Your task to perform on an android device: Add razer blade to the cart on ebay Image 0: 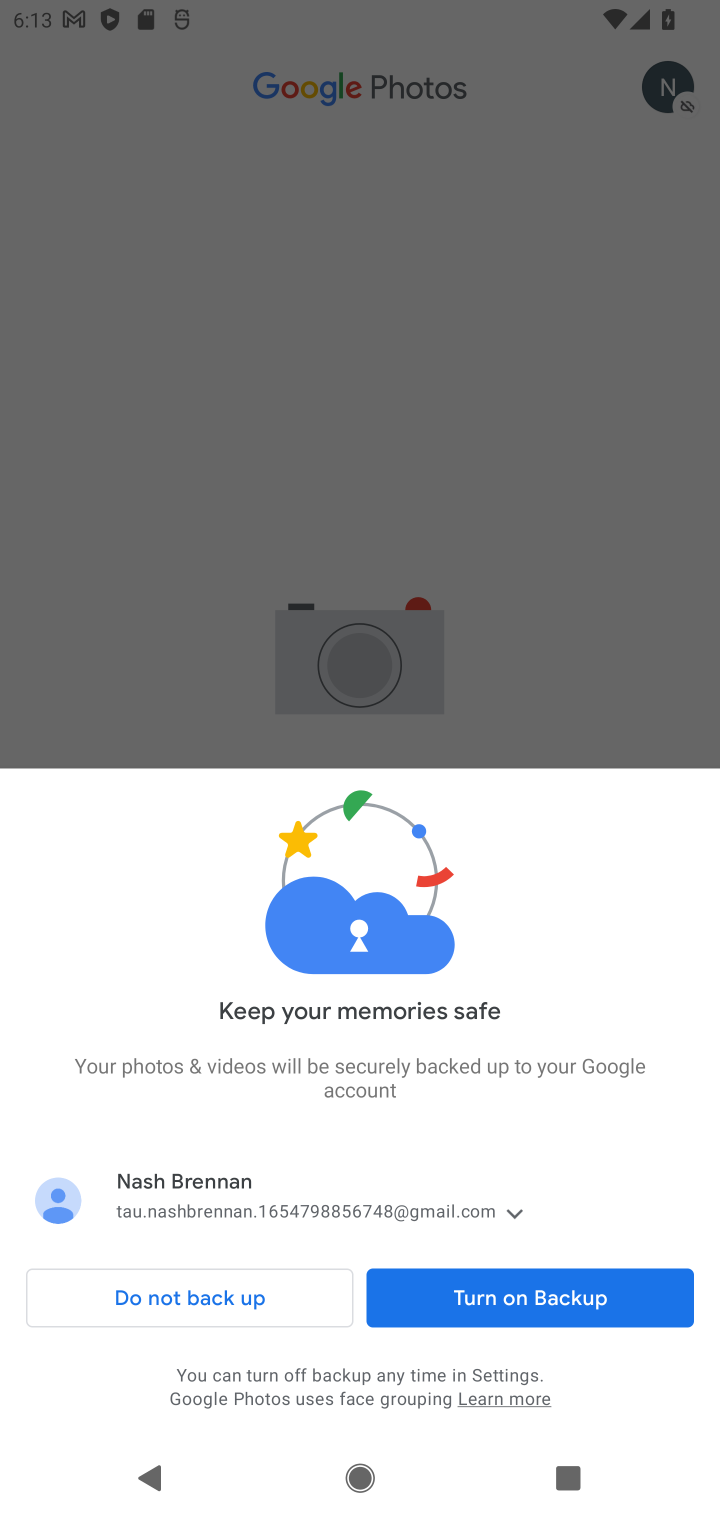
Step 0: press home button
Your task to perform on an android device: Add razer blade to the cart on ebay Image 1: 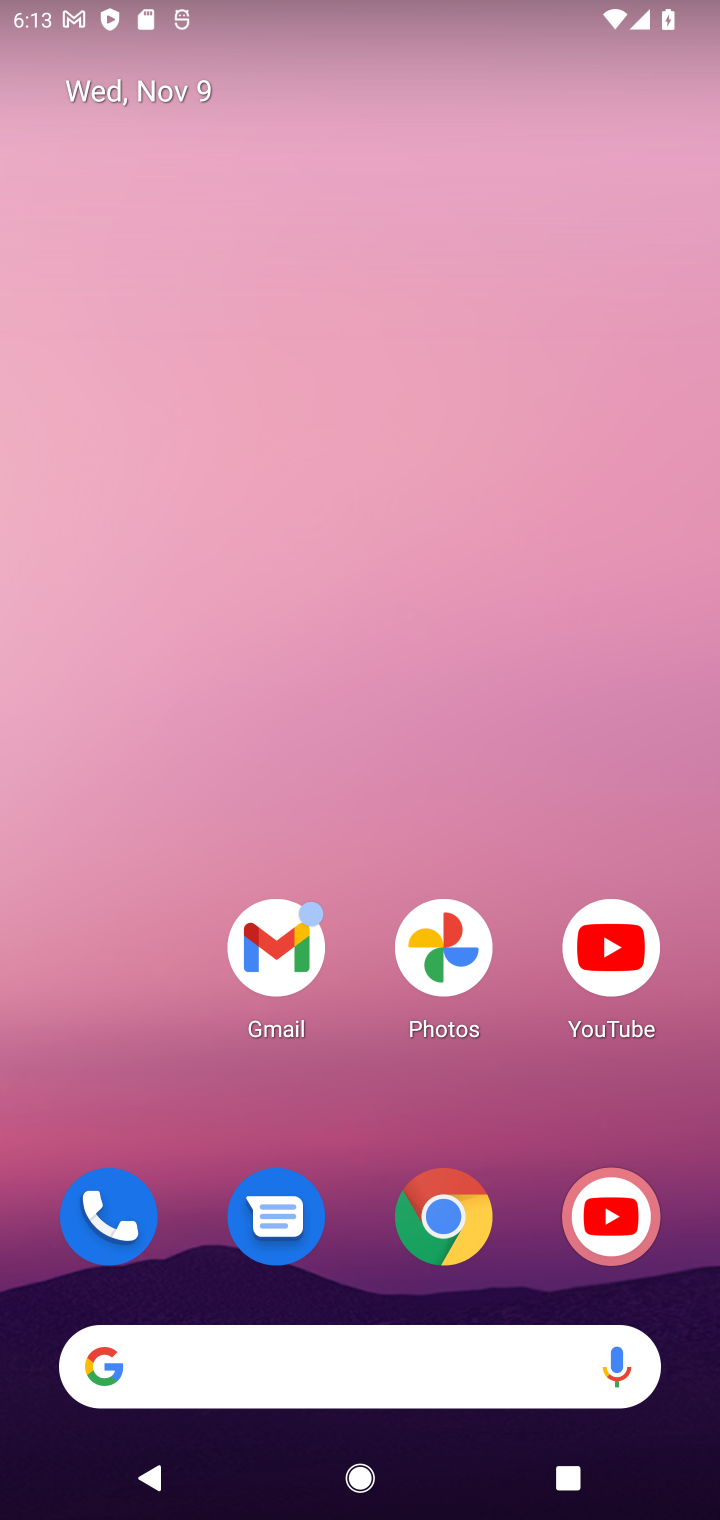
Step 1: drag from (357, 1041) to (426, 209)
Your task to perform on an android device: Add razer blade to the cart on ebay Image 2: 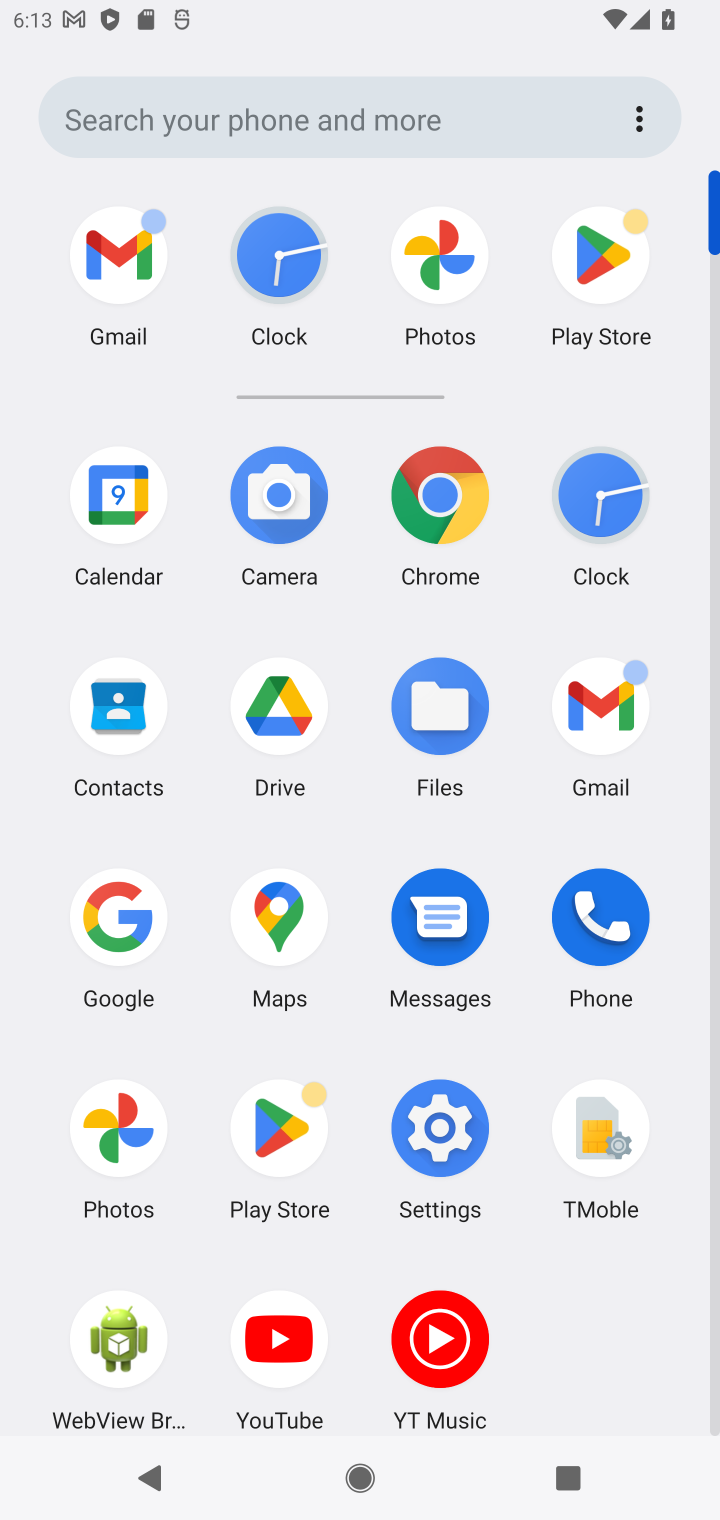
Step 2: click (451, 475)
Your task to perform on an android device: Add razer blade to the cart on ebay Image 3: 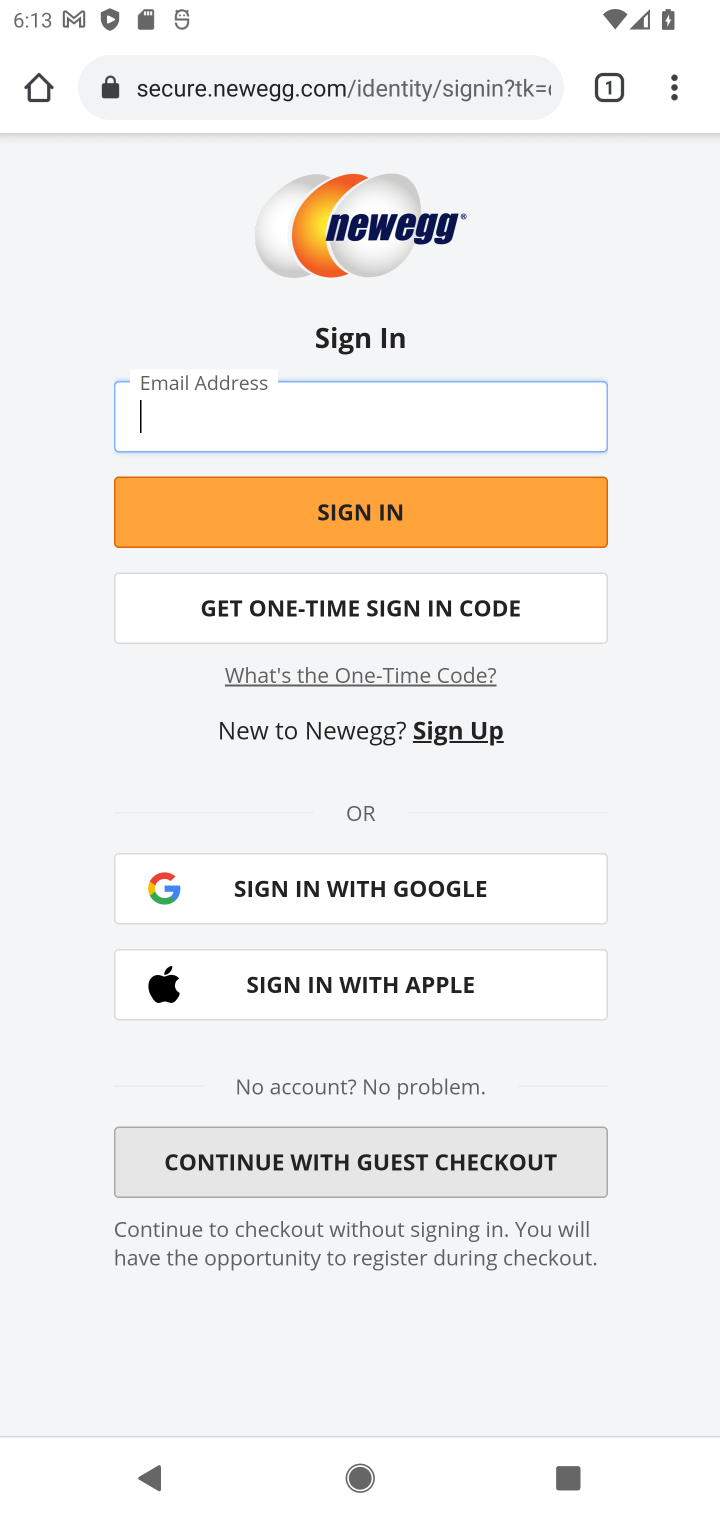
Step 3: click (416, 87)
Your task to perform on an android device: Add razer blade to the cart on ebay Image 4: 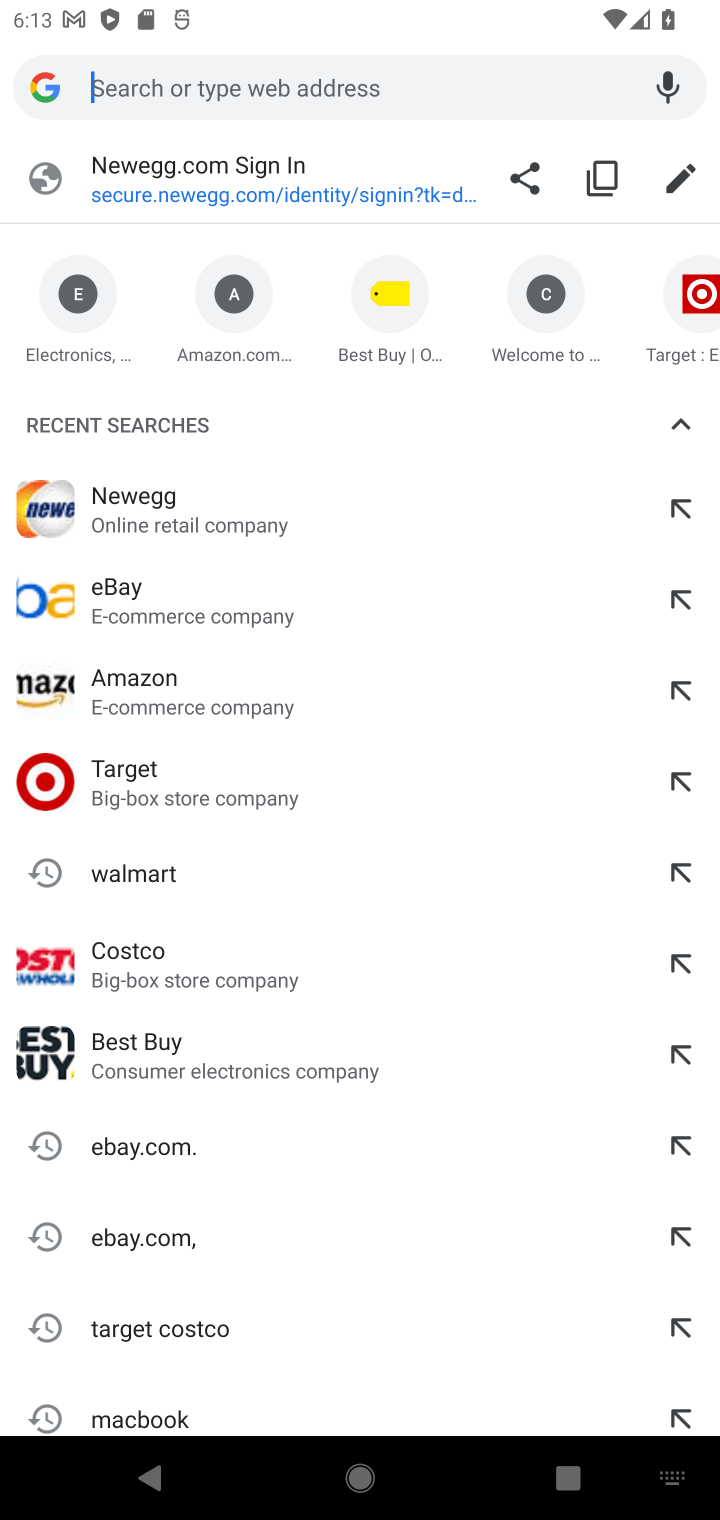
Step 4: type "ebay.com"
Your task to perform on an android device: Add razer blade to the cart on ebay Image 5: 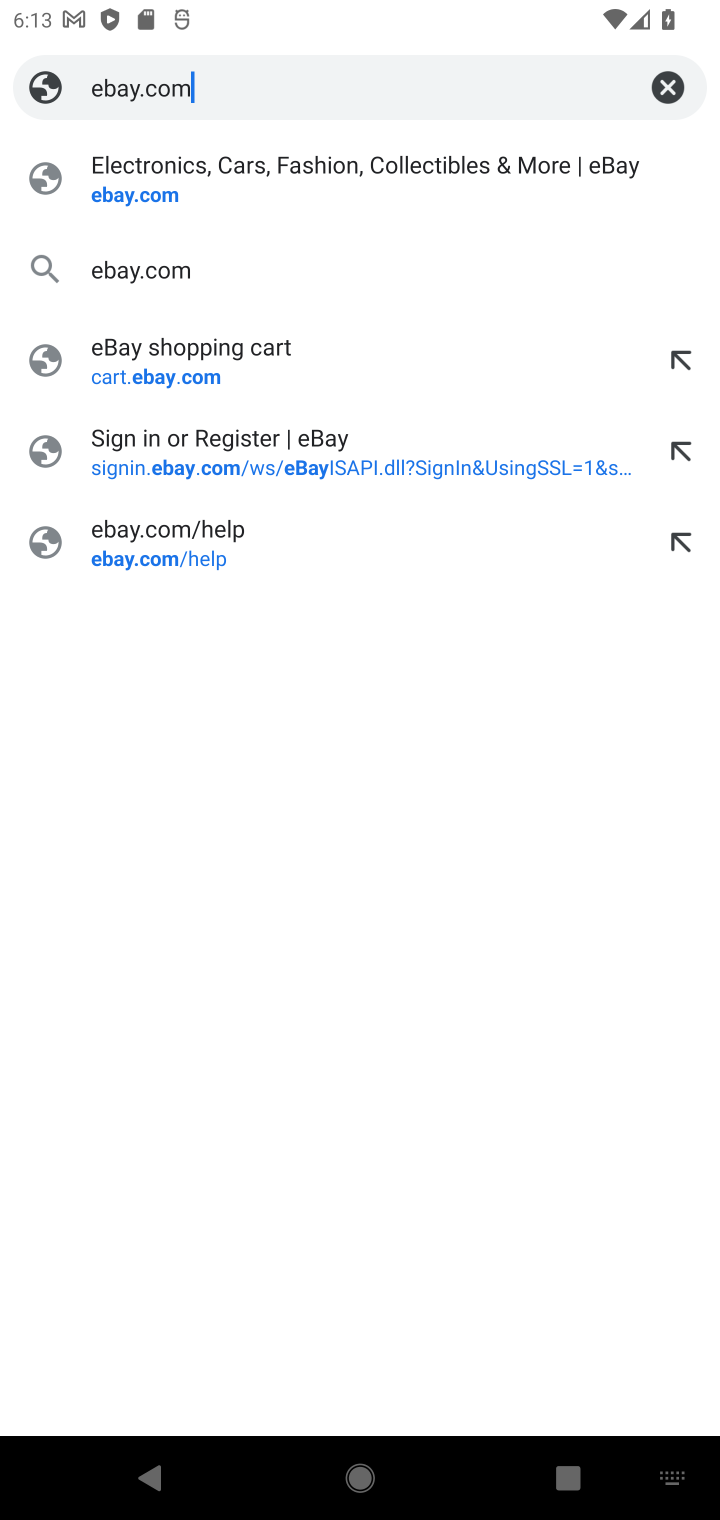
Step 5: press enter
Your task to perform on an android device: Add razer blade to the cart on ebay Image 6: 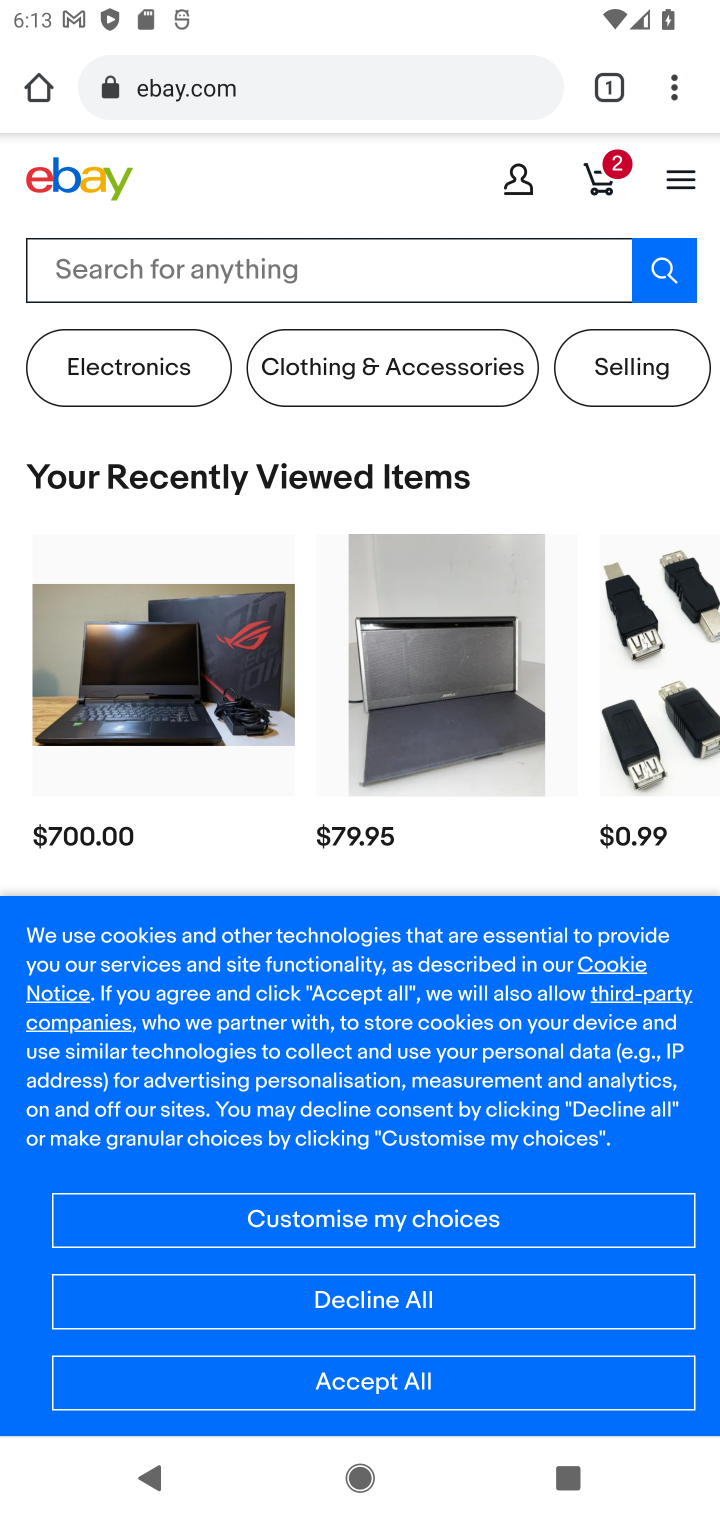
Step 6: click (402, 278)
Your task to perform on an android device: Add razer blade to the cart on ebay Image 7: 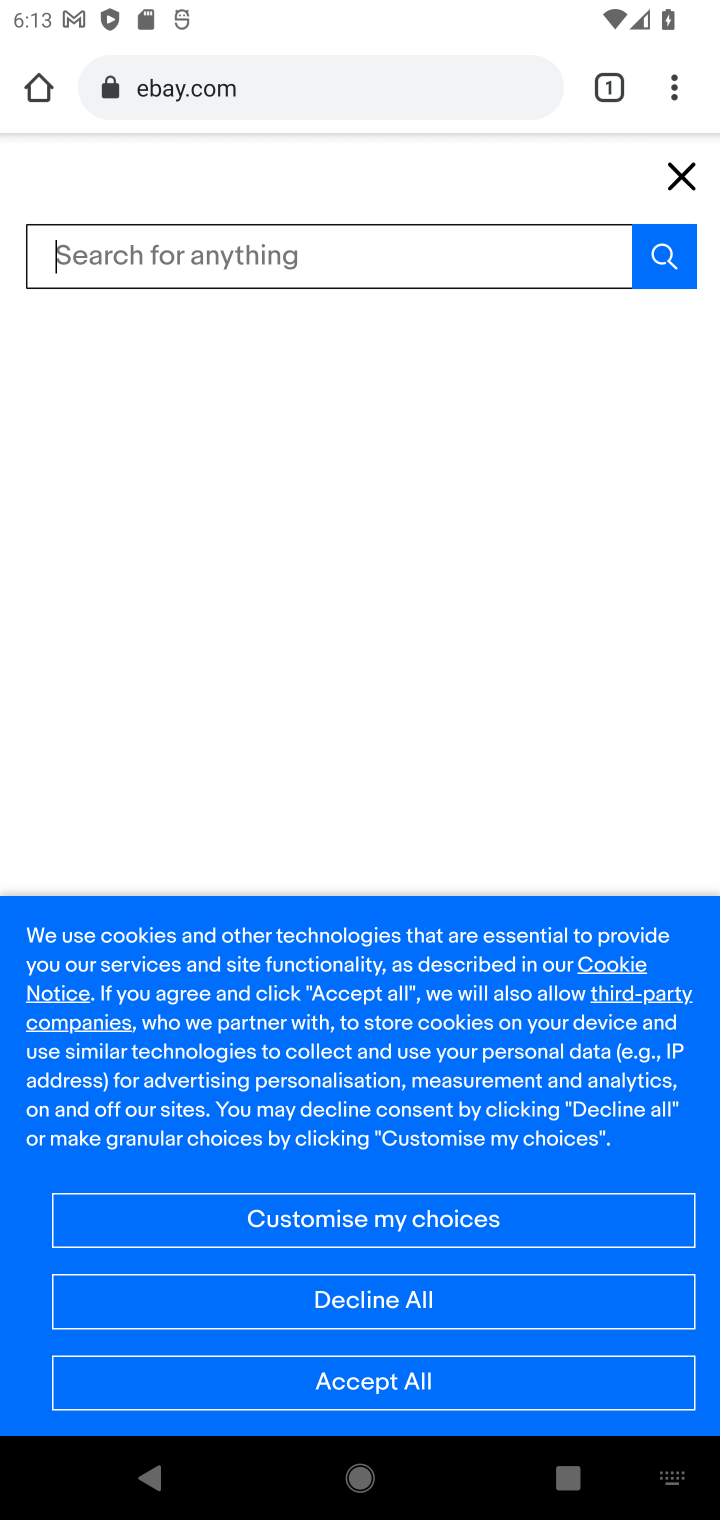
Step 7: type "razer blade"
Your task to perform on an android device: Add razer blade to the cart on ebay Image 8: 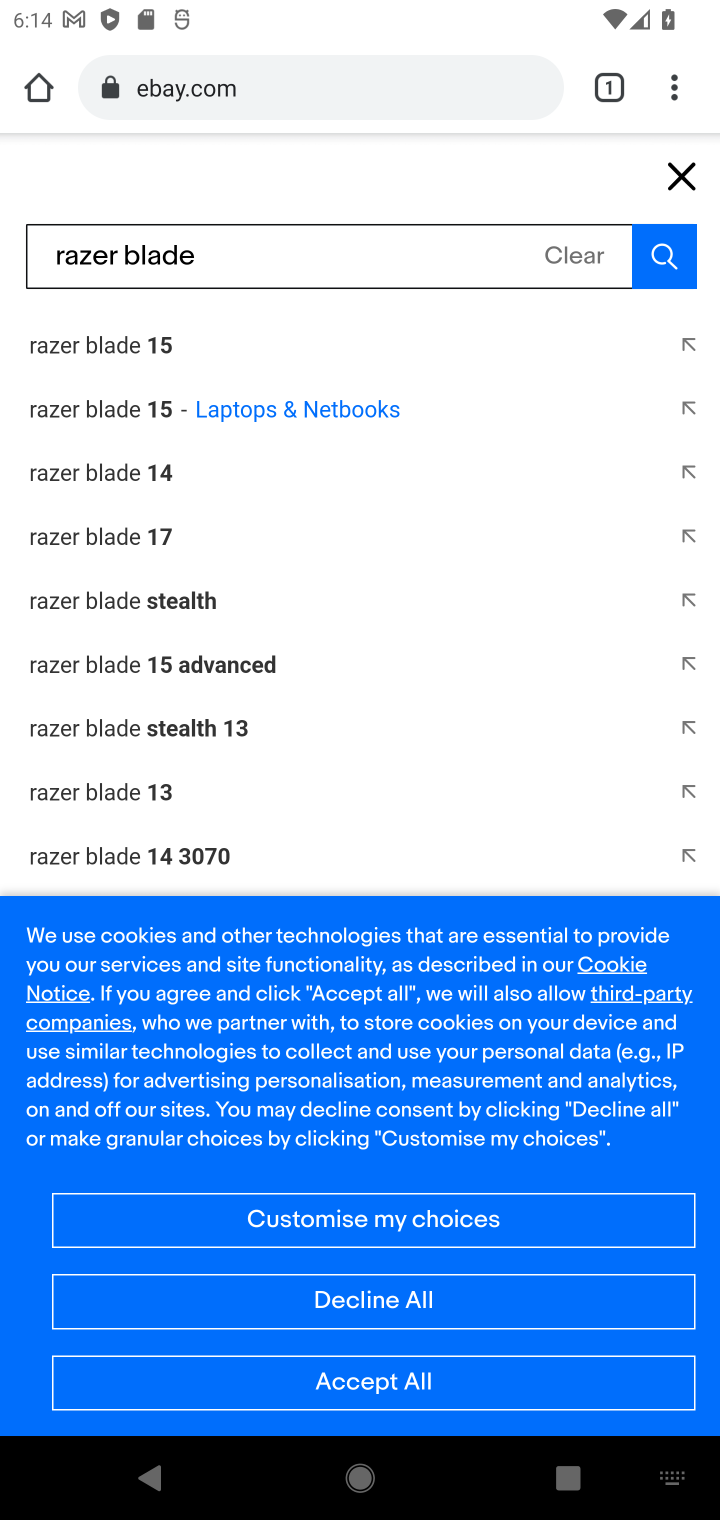
Step 8: press enter
Your task to perform on an android device: Add razer blade to the cart on ebay Image 9: 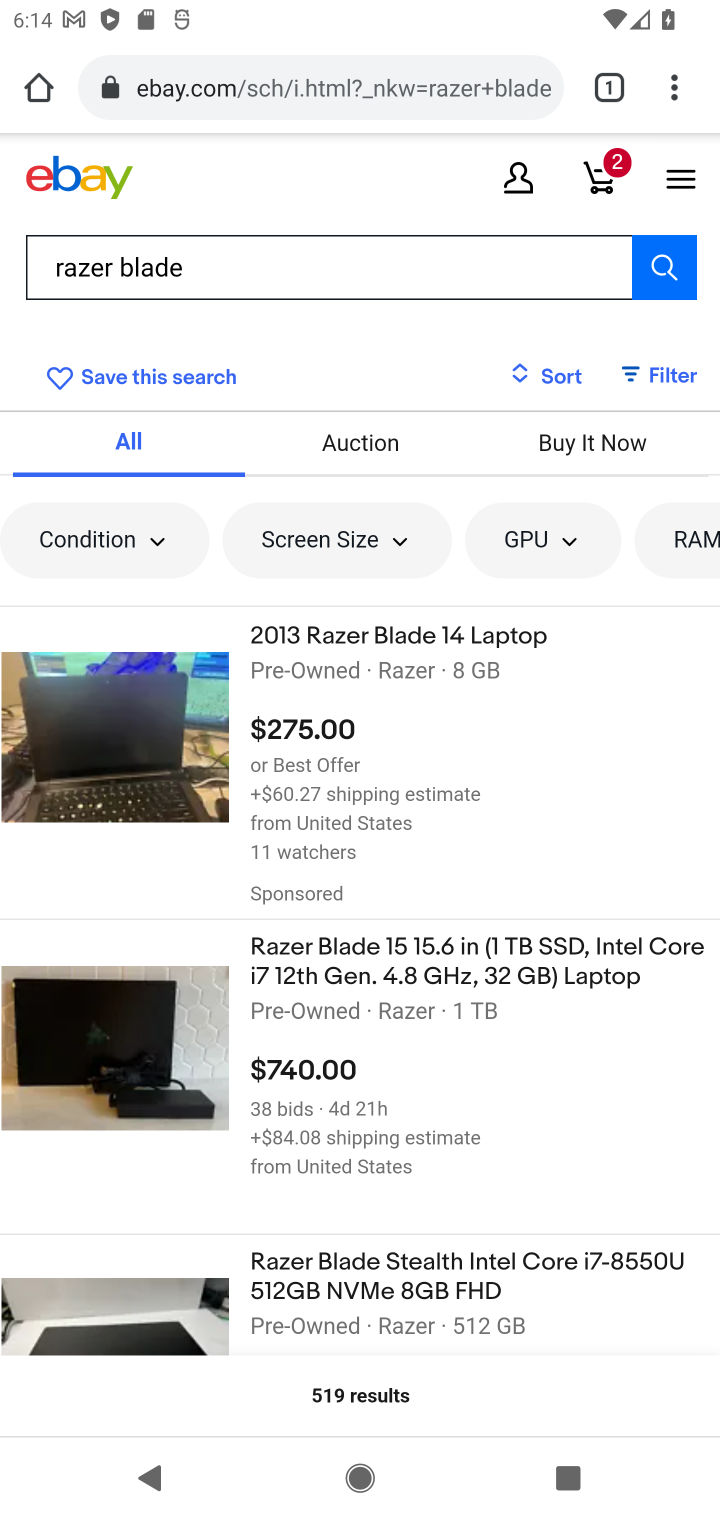
Step 9: click (87, 696)
Your task to perform on an android device: Add razer blade to the cart on ebay Image 10: 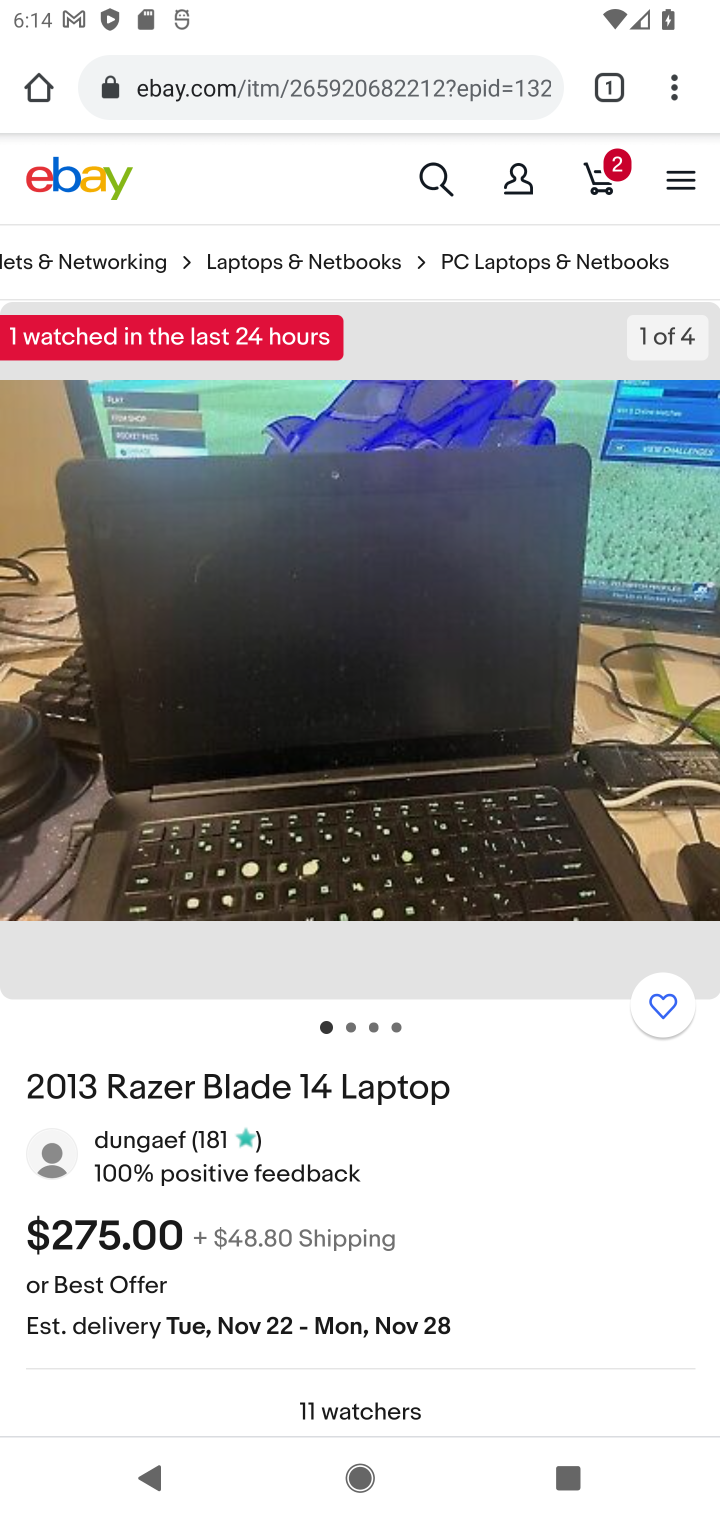
Step 10: drag from (455, 1223) to (454, 527)
Your task to perform on an android device: Add razer blade to the cart on ebay Image 11: 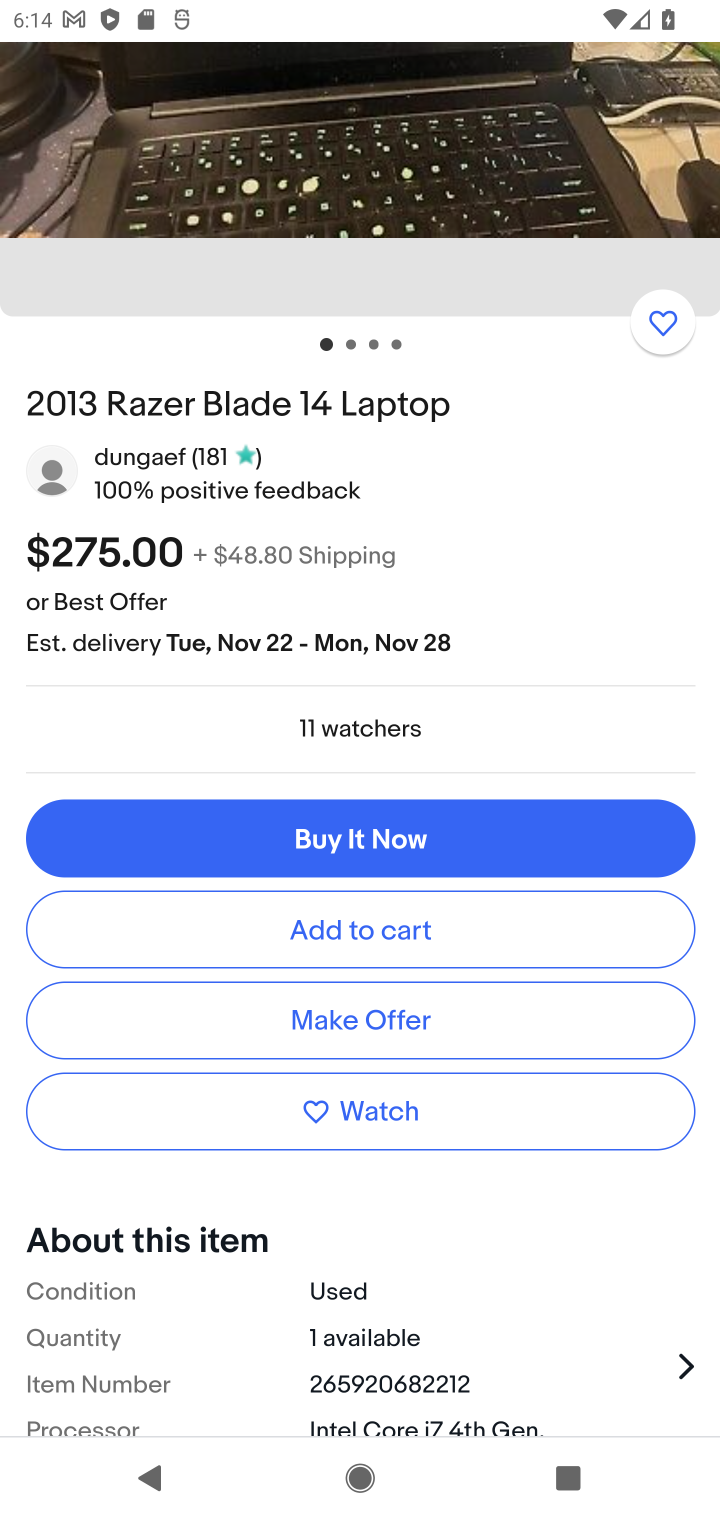
Step 11: click (456, 933)
Your task to perform on an android device: Add razer blade to the cart on ebay Image 12: 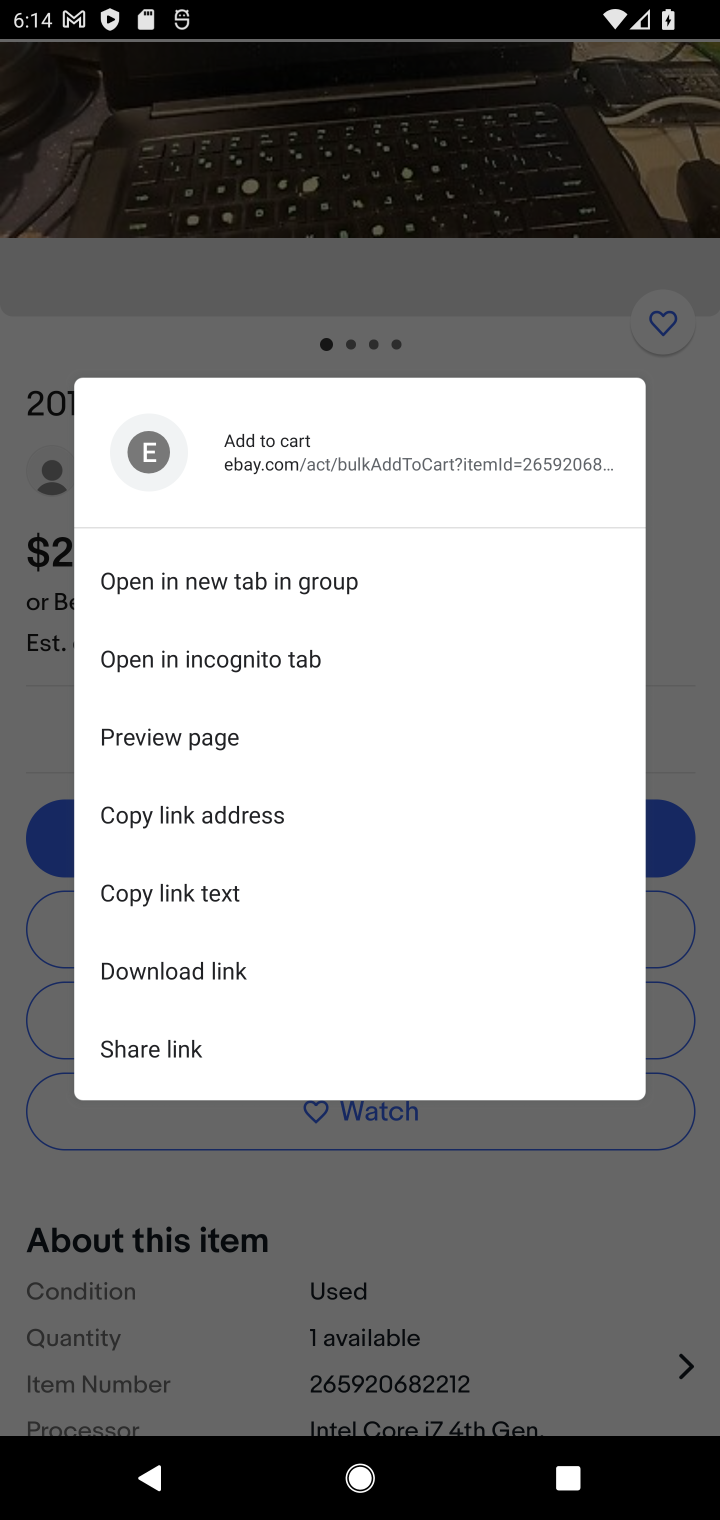
Step 12: click (373, 279)
Your task to perform on an android device: Add razer blade to the cart on ebay Image 13: 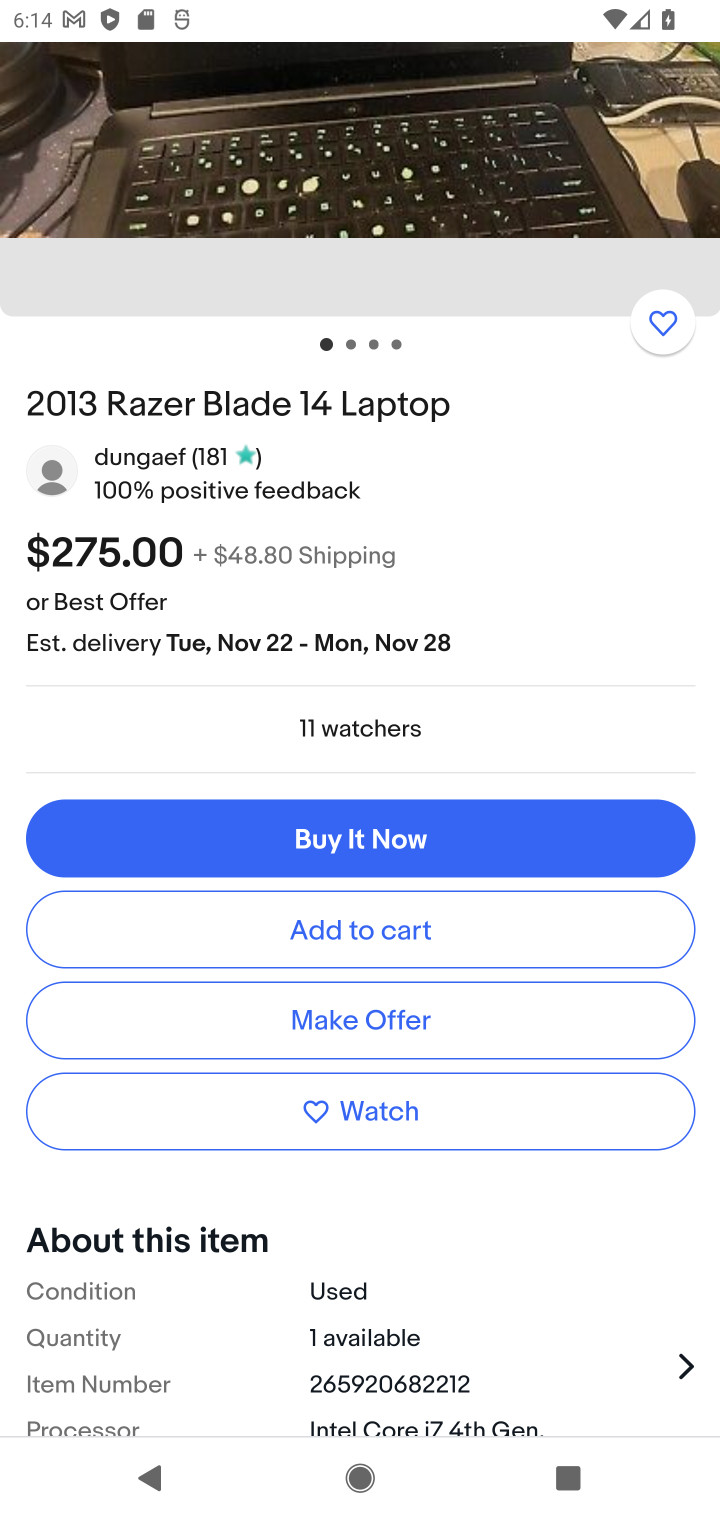
Step 13: click (345, 937)
Your task to perform on an android device: Add razer blade to the cart on ebay Image 14: 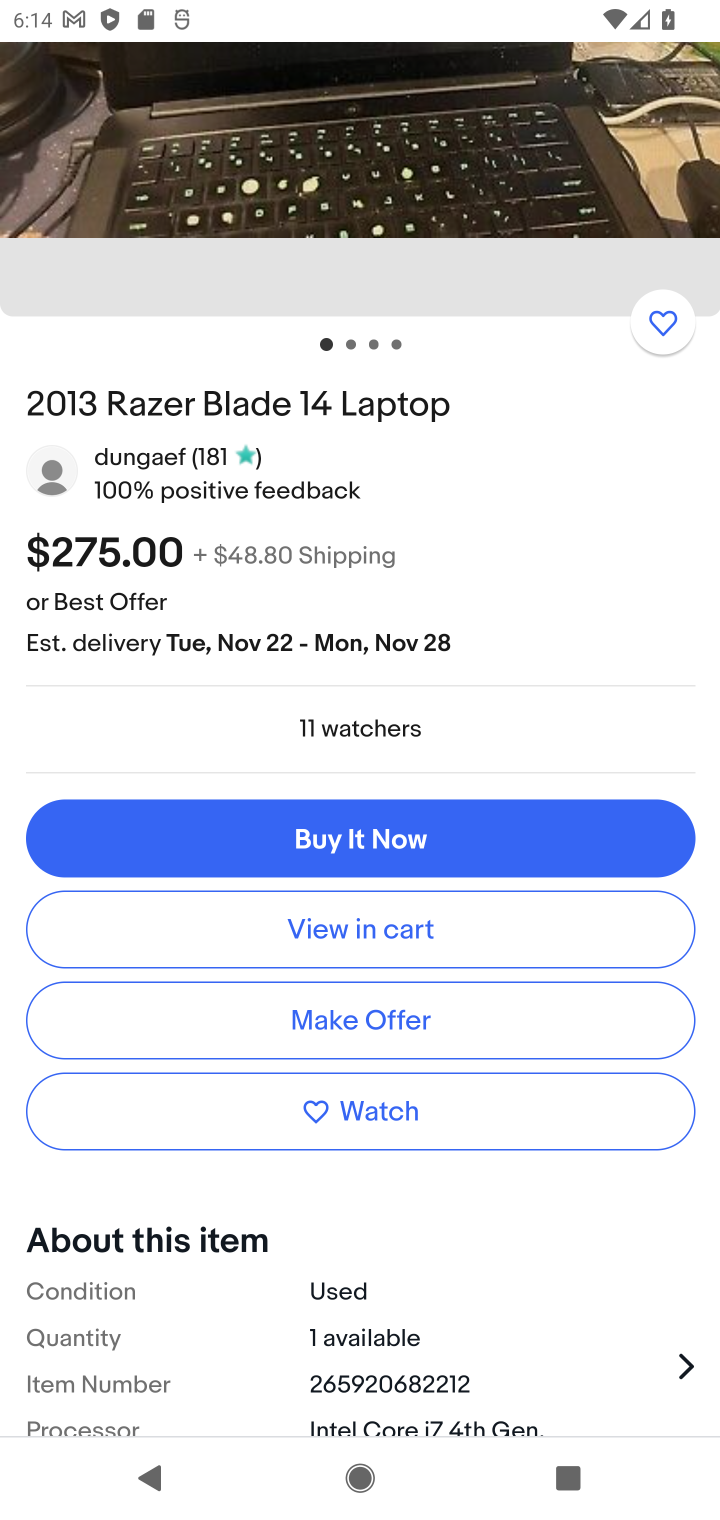
Step 14: task complete